Your task to perform on an android device: allow cookies in the chrome app Image 0: 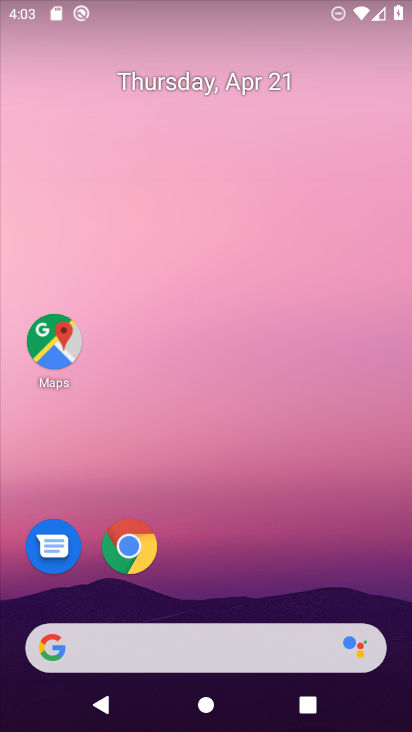
Step 0: click (141, 548)
Your task to perform on an android device: allow cookies in the chrome app Image 1: 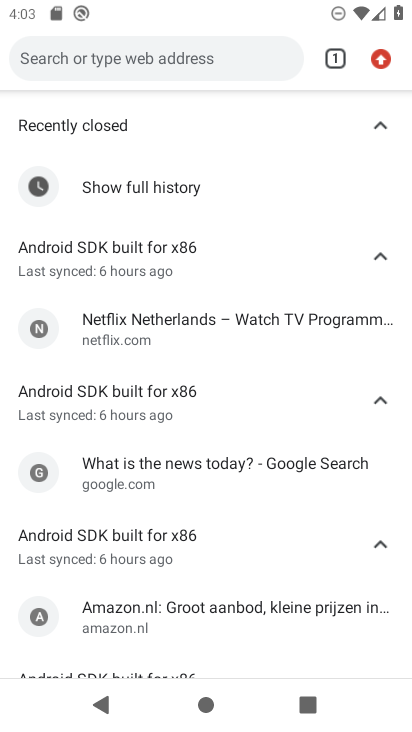
Step 1: click (397, 55)
Your task to perform on an android device: allow cookies in the chrome app Image 2: 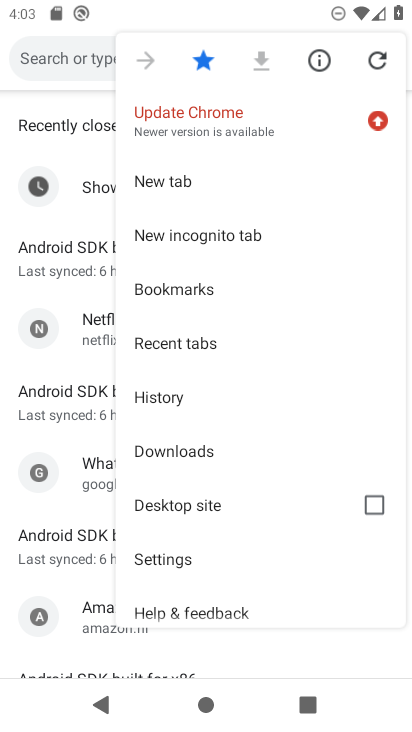
Step 2: click (165, 569)
Your task to perform on an android device: allow cookies in the chrome app Image 3: 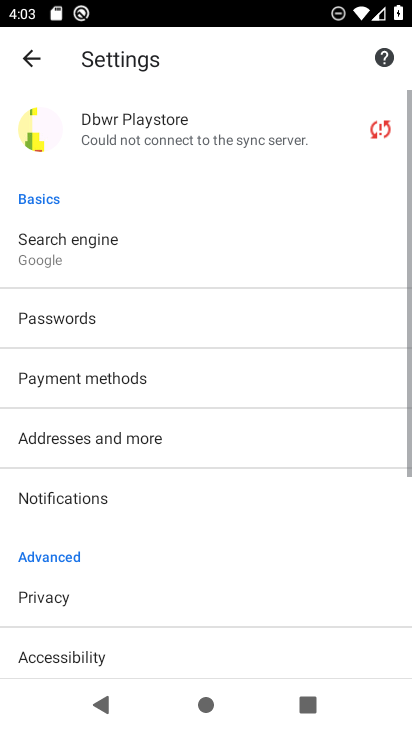
Step 3: drag from (165, 569) to (174, 248)
Your task to perform on an android device: allow cookies in the chrome app Image 4: 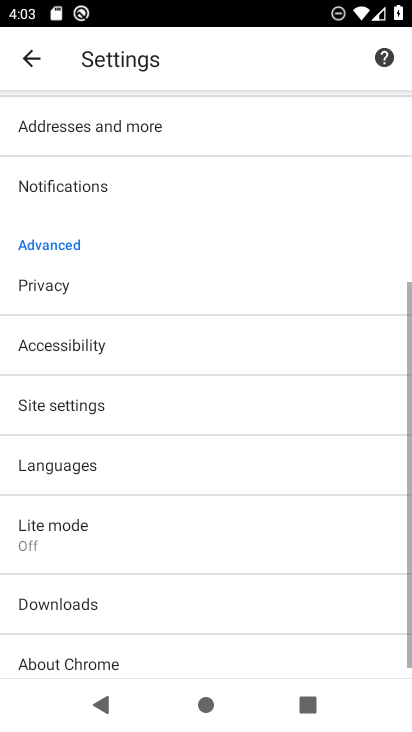
Step 4: drag from (99, 610) to (148, 222)
Your task to perform on an android device: allow cookies in the chrome app Image 5: 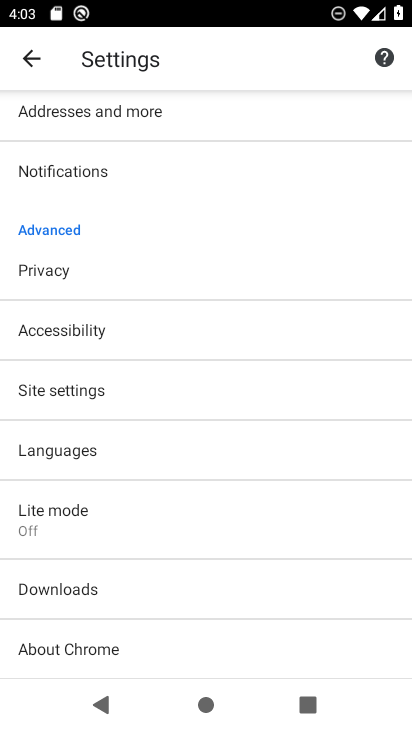
Step 5: click (123, 407)
Your task to perform on an android device: allow cookies in the chrome app Image 6: 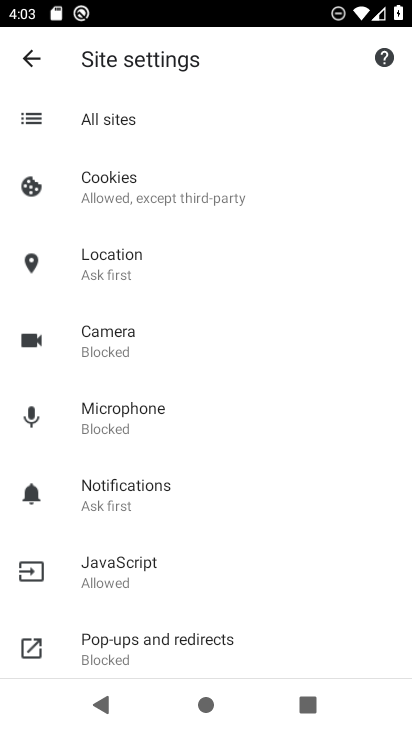
Step 6: click (126, 208)
Your task to perform on an android device: allow cookies in the chrome app Image 7: 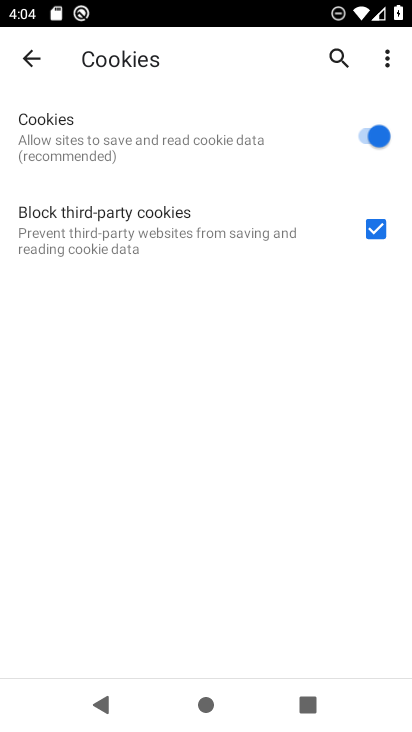
Step 7: task complete